Your task to perform on an android device: toggle sleep mode Image 0: 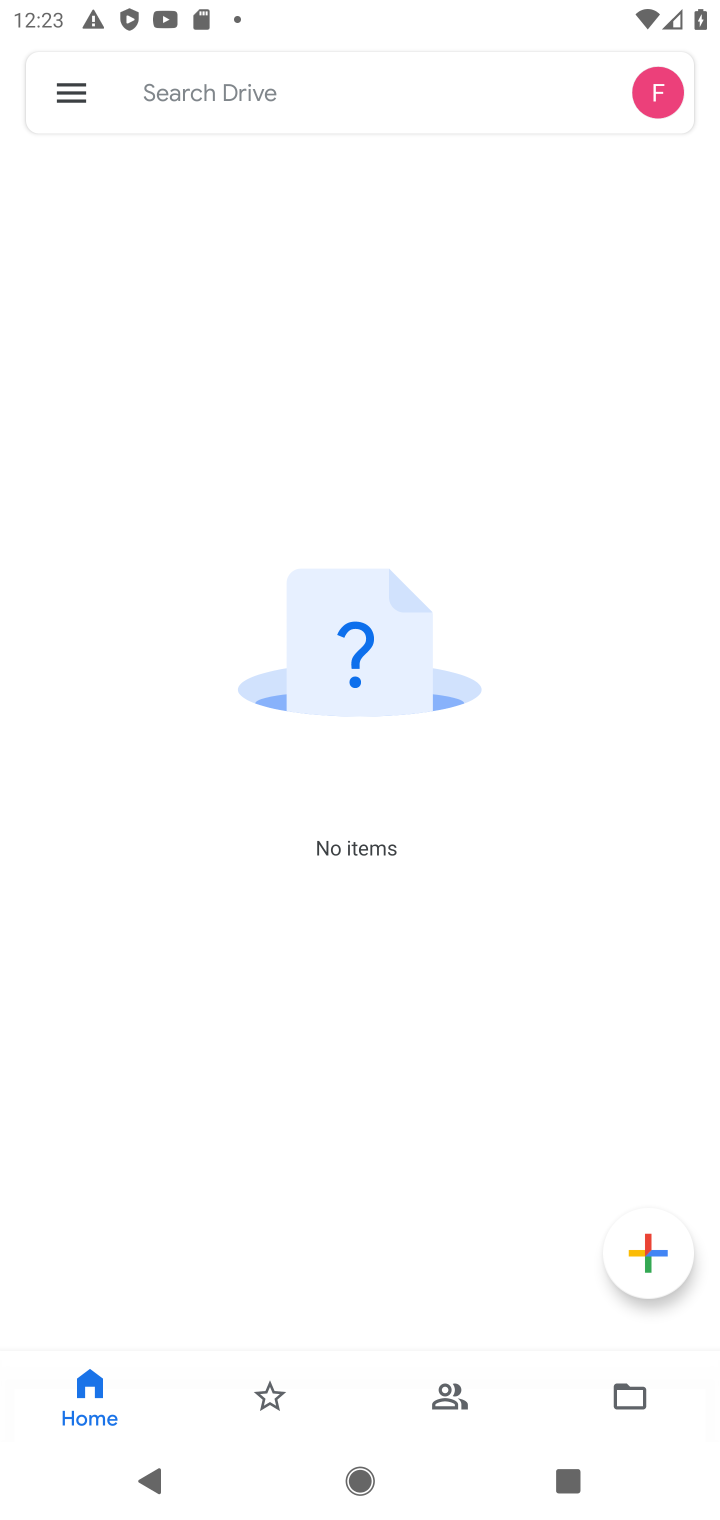
Step 0: press home button
Your task to perform on an android device: toggle sleep mode Image 1: 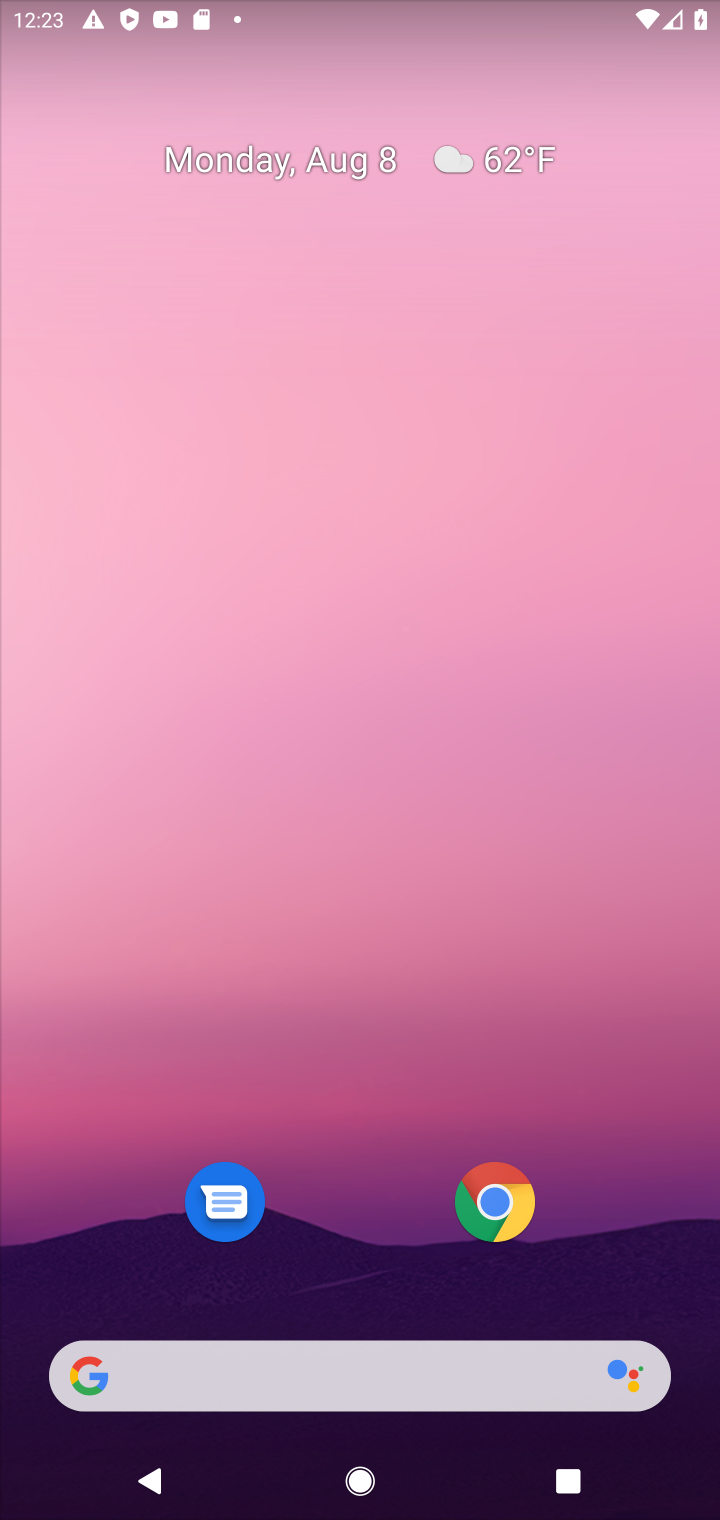
Step 1: task complete